Your task to perform on an android device: check storage Image 0: 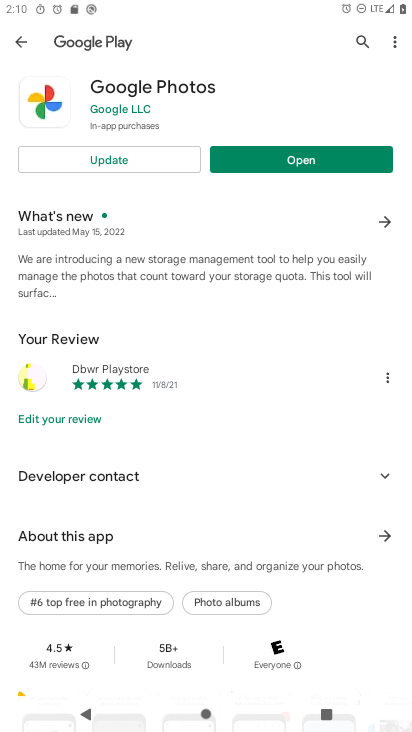
Step 0: press home button
Your task to perform on an android device: check storage Image 1: 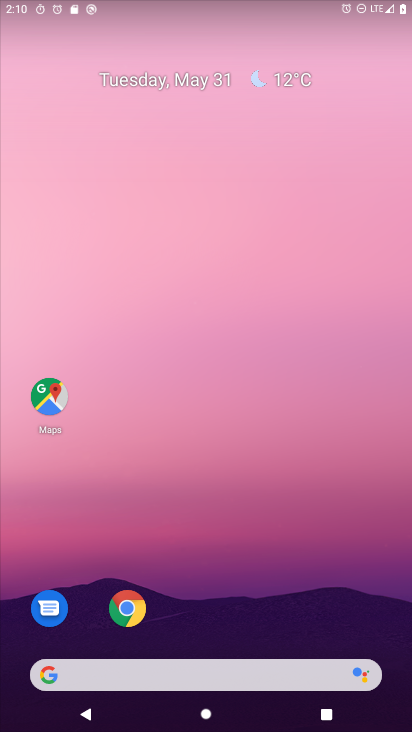
Step 1: drag from (239, 6) to (289, 1)
Your task to perform on an android device: check storage Image 2: 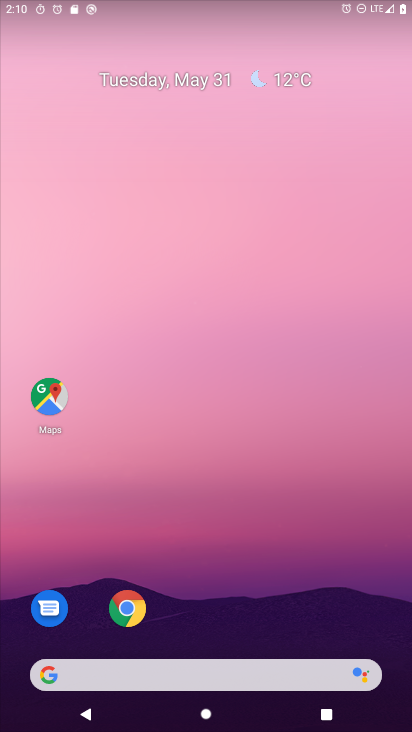
Step 2: drag from (230, 646) to (282, 19)
Your task to perform on an android device: check storage Image 3: 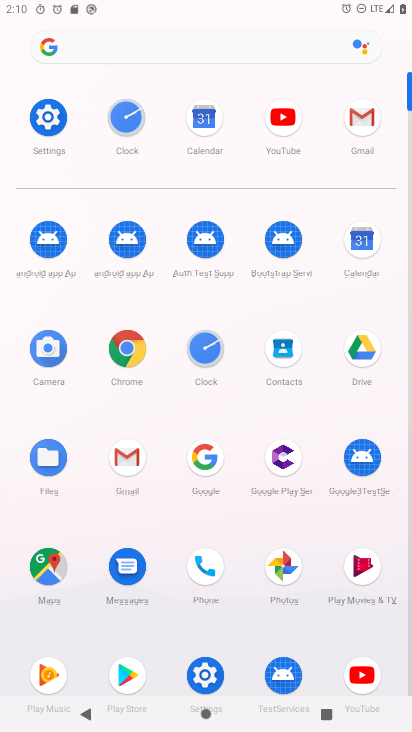
Step 3: click (45, 118)
Your task to perform on an android device: check storage Image 4: 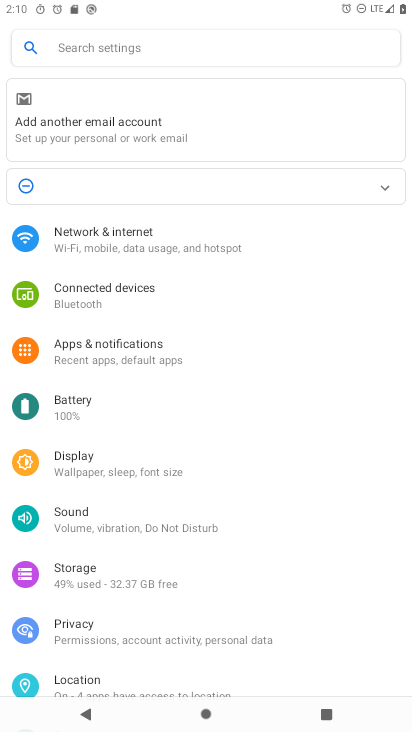
Step 4: click (57, 573)
Your task to perform on an android device: check storage Image 5: 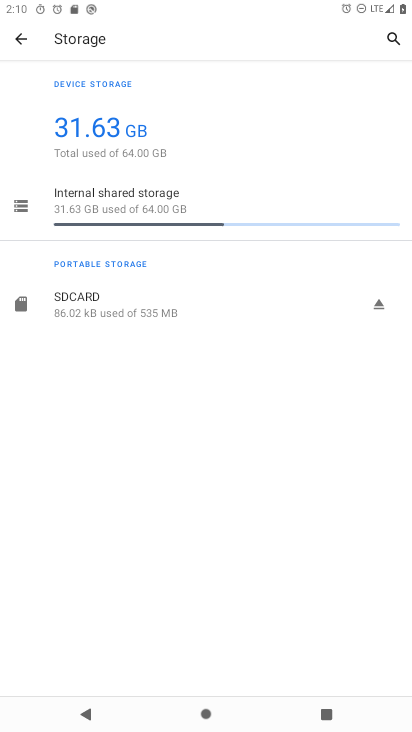
Step 5: click (183, 219)
Your task to perform on an android device: check storage Image 6: 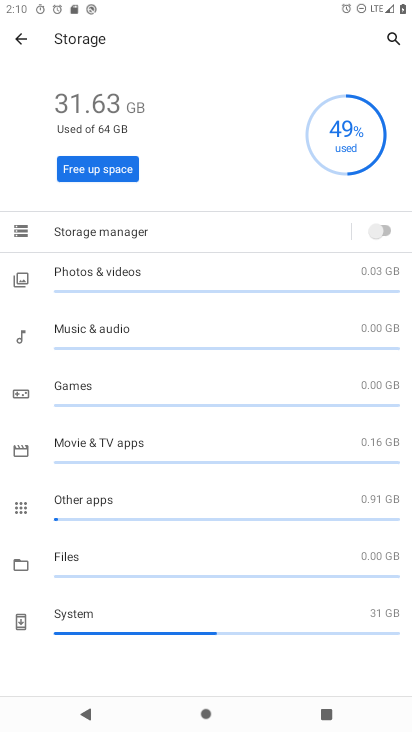
Step 6: task complete